Your task to perform on an android device: Open settings on Google Maps Image 0: 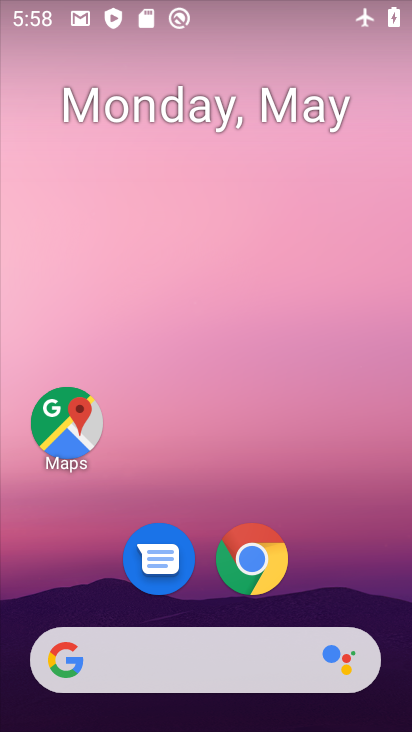
Step 0: click (65, 420)
Your task to perform on an android device: Open settings on Google Maps Image 1: 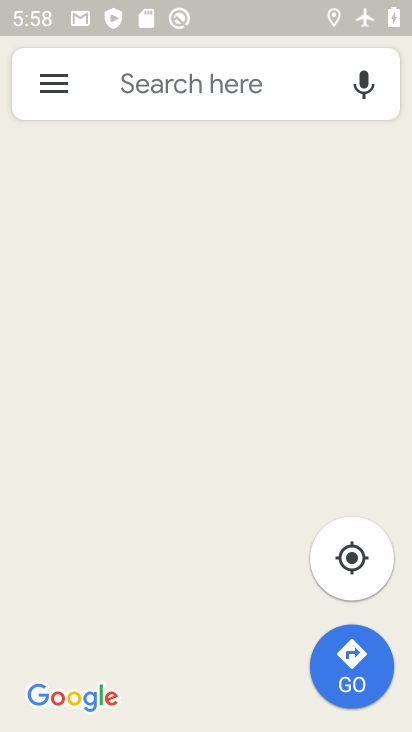
Step 1: click (43, 87)
Your task to perform on an android device: Open settings on Google Maps Image 2: 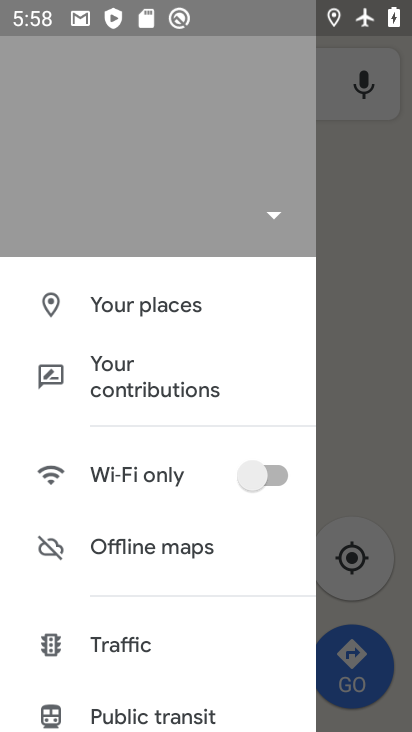
Step 2: drag from (153, 645) to (153, 296)
Your task to perform on an android device: Open settings on Google Maps Image 3: 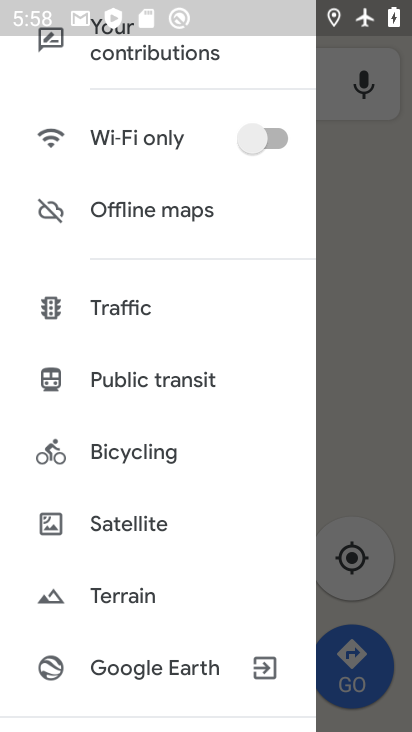
Step 3: drag from (164, 583) to (151, 209)
Your task to perform on an android device: Open settings on Google Maps Image 4: 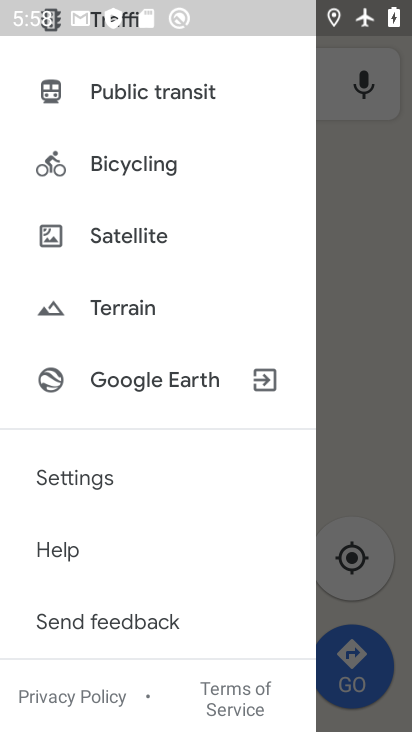
Step 4: click (68, 480)
Your task to perform on an android device: Open settings on Google Maps Image 5: 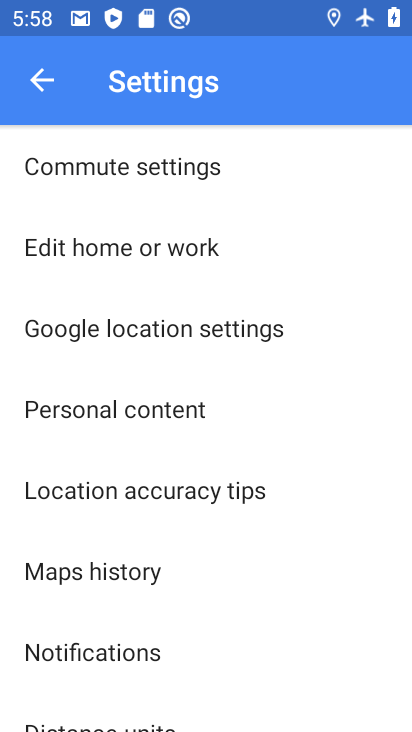
Step 5: task complete